Your task to perform on an android device: search for starred emails in the gmail app Image 0: 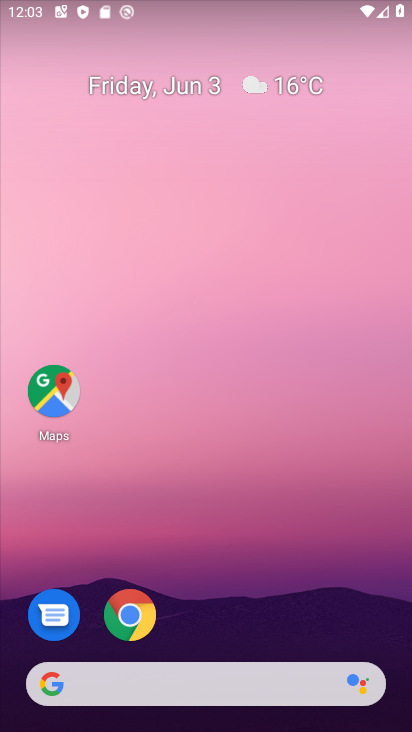
Step 0: drag from (264, 630) to (253, 303)
Your task to perform on an android device: search for starred emails in the gmail app Image 1: 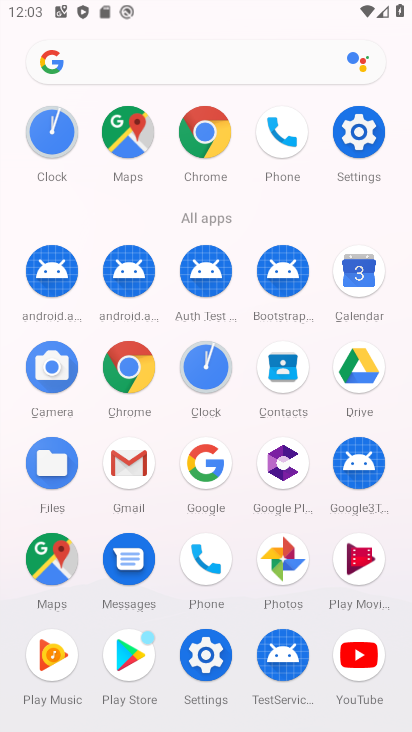
Step 1: click (124, 455)
Your task to perform on an android device: search for starred emails in the gmail app Image 2: 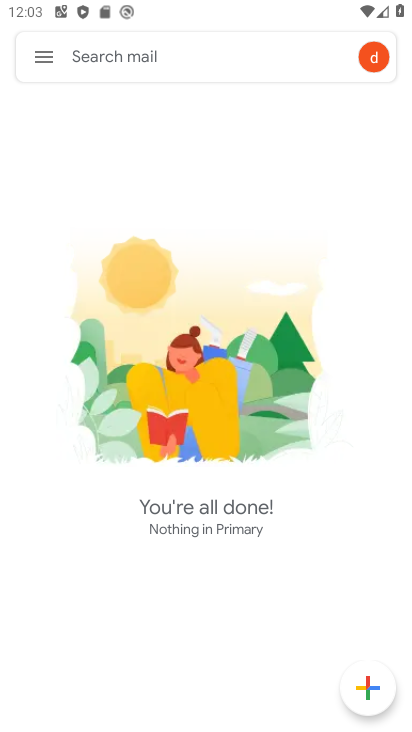
Step 2: click (45, 56)
Your task to perform on an android device: search for starred emails in the gmail app Image 3: 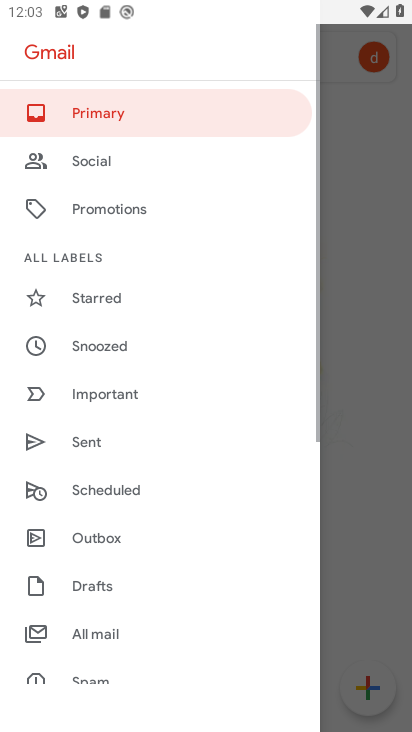
Step 3: click (92, 285)
Your task to perform on an android device: search for starred emails in the gmail app Image 4: 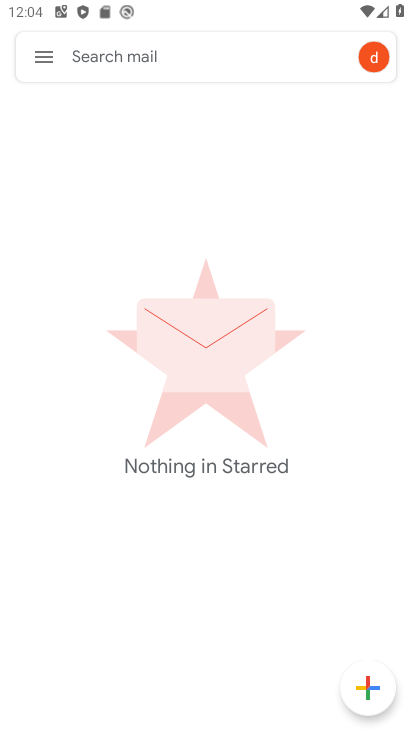
Step 4: task complete